Your task to perform on an android device: Open Android settings Image 0: 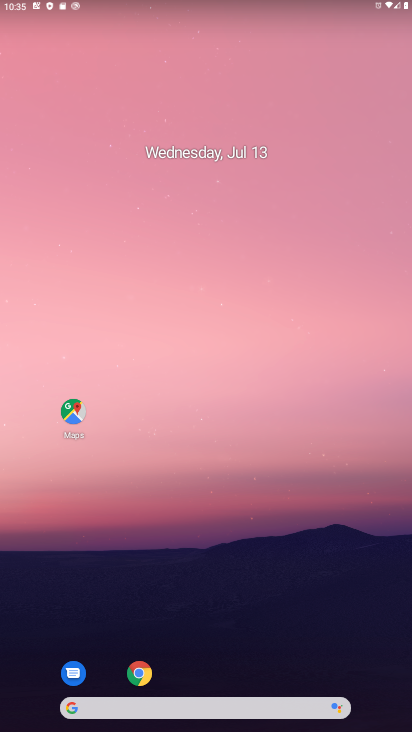
Step 0: drag from (205, 676) to (200, 235)
Your task to perform on an android device: Open Android settings Image 1: 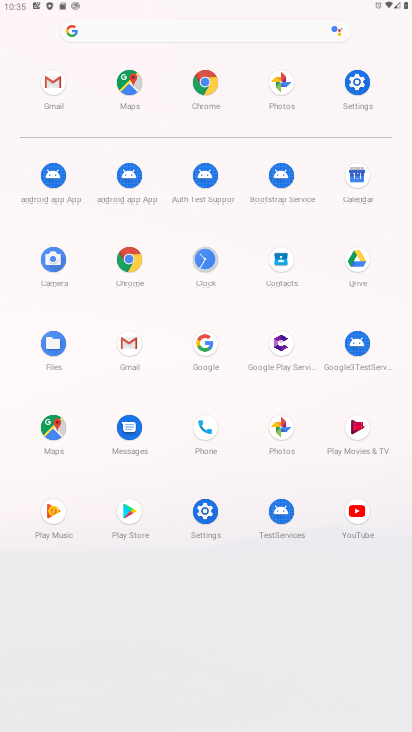
Step 1: click (369, 85)
Your task to perform on an android device: Open Android settings Image 2: 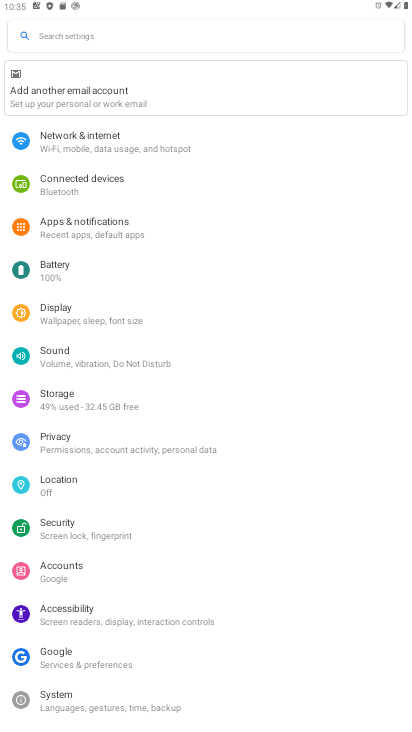
Step 2: task complete